Your task to perform on an android device: Open battery settings Image 0: 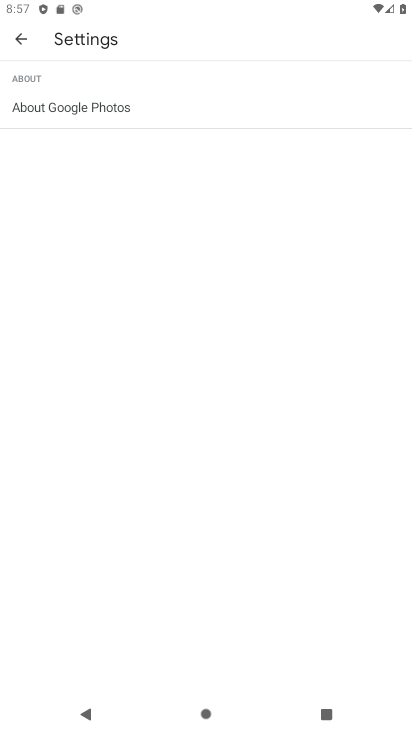
Step 0: press home button
Your task to perform on an android device: Open battery settings Image 1: 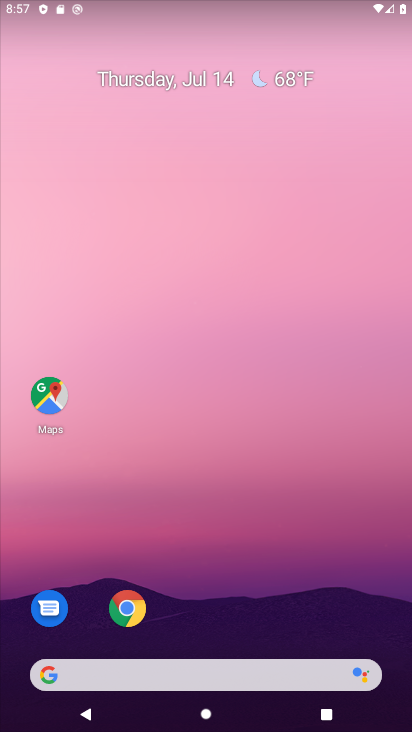
Step 1: drag from (191, 670) to (235, 74)
Your task to perform on an android device: Open battery settings Image 2: 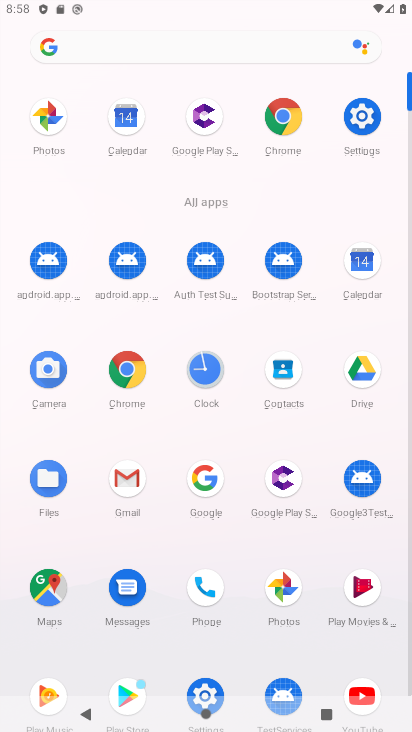
Step 2: click (376, 125)
Your task to perform on an android device: Open battery settings Image 3: 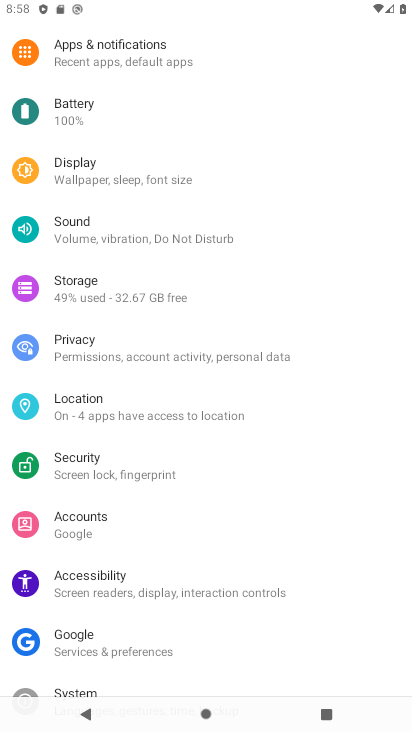
Step 3: click (94, 126)
Your task to perform on an android device: Open battery settings Image 4: 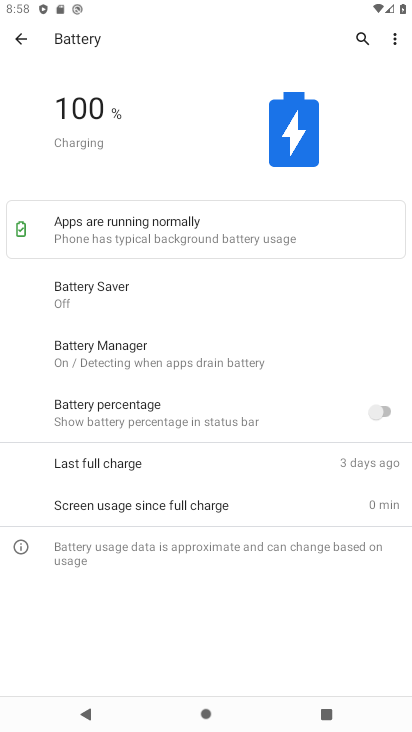
Step 4: task complete